Your task to perform on an android device: read, delete, or share a saved page in the chrome app Image 0: 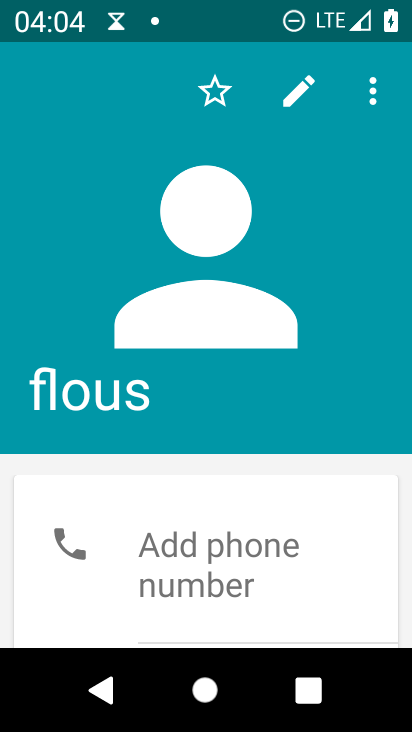
Step 0: press home button
Your task to perform on an android device: read, delete, or share a saved page in the chrome app Image 1: 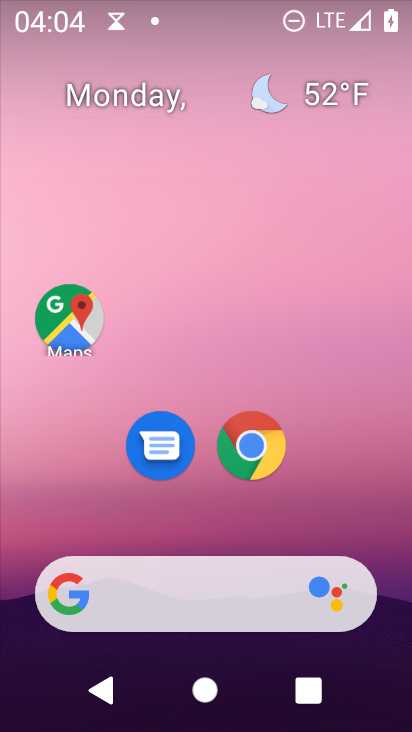
Step 1: click (260, 440)
Your task to perform on an android device: read, delete, or share a saved page in the chrome app Image 2: 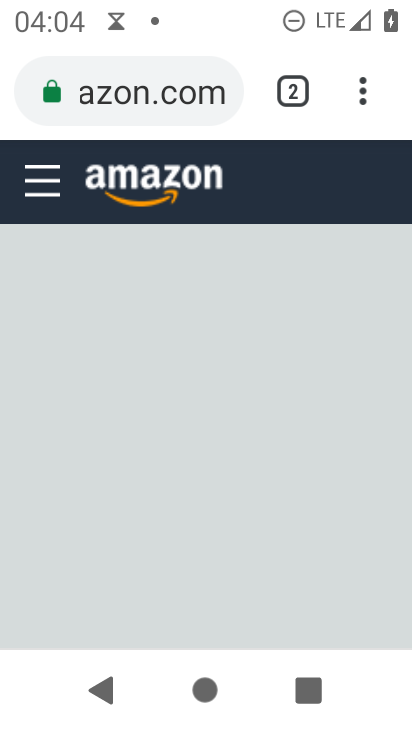
Step 2: click (355, 98)
Your task to perform on an android device: read, delete, or share a saved page in the chrome app Image 3: 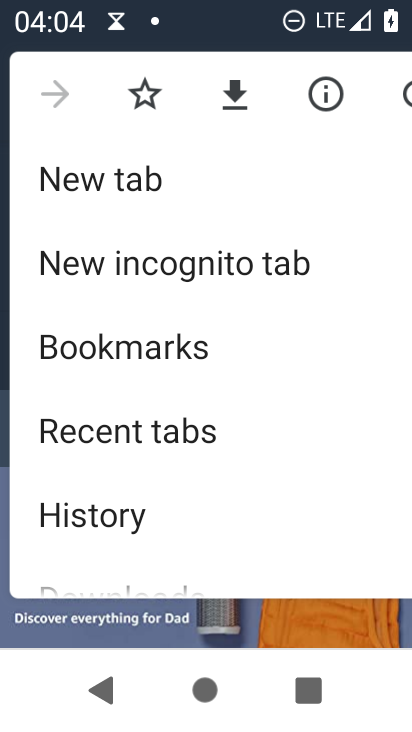
Step 3: drag from (156, 517) to (185, 286)
Your task to perform on an android device: read, delete, or share a saved page in the chrome app Image 4: 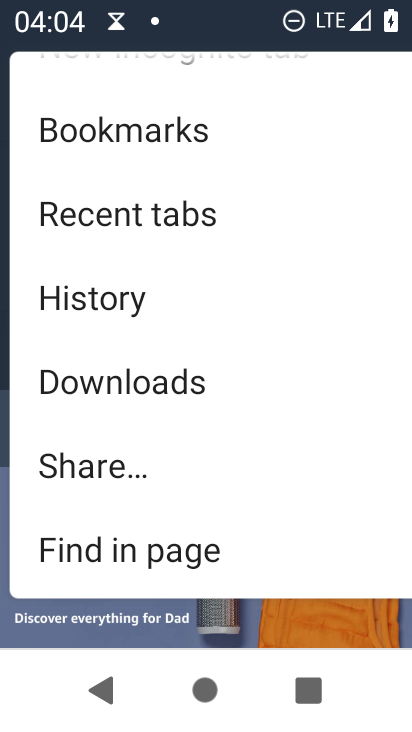
Step 4: click (168, 397)
Your task to perform on an android device: read, delete, or share a saved page in the chrome app Image 5: 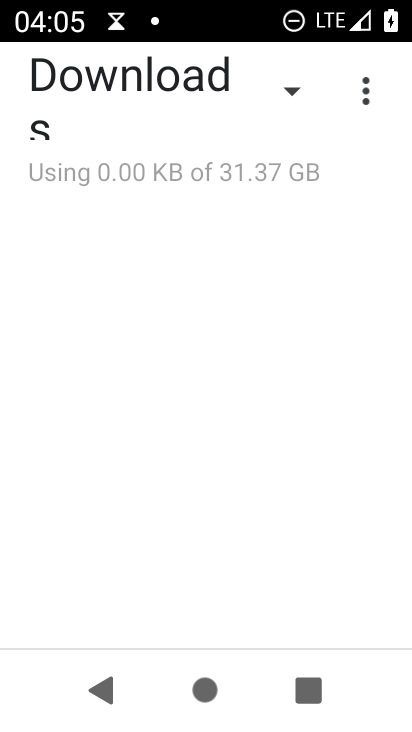
Step 5: task complete